Your task to perform on an android device: Search for flights from NYC to London Image 0: 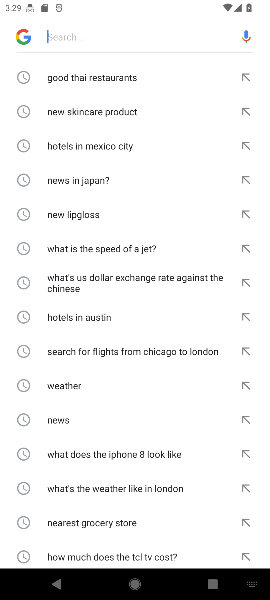
Step 0: press home button
Your task to perform on an android device: Search for flights from NYC to London Image 1: 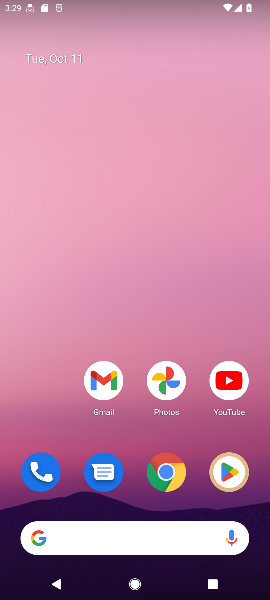
Step 1: click (159, 471)
Your task to perform on an android device: Search for flights from NYC to London Image 2: 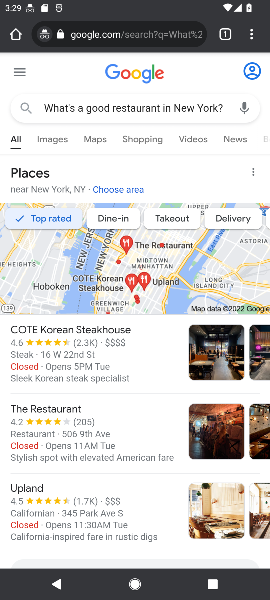
Step 2: click (124, 32)
Your task to perform on an android device: Search for flights from NYC to London Image 3: 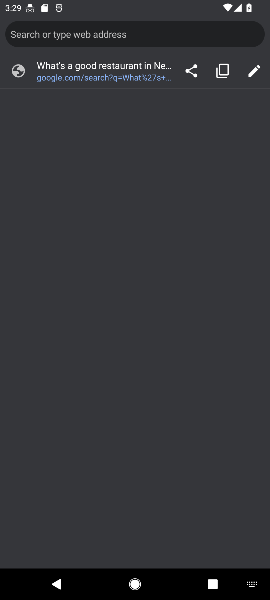
Step 3: type " flights from NYC to London"
Your task to perform on an android device: Search for flights from NYC to London Image 4: 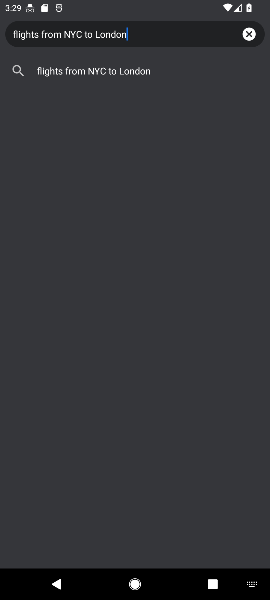
Step 4: click (131, 78)
Your task to perform on an android device: Search for flights from NYC to London Image 5: 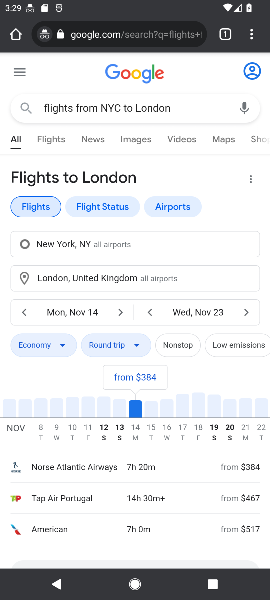
Step 5: drag from (56, 520) to (58, 389)
Your task to perform on an android device: Search for flights from NYC to London Image 6: 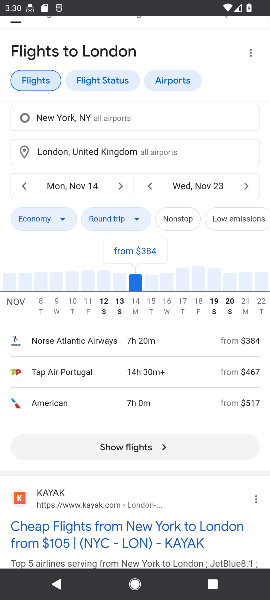
Step 6: drag from (116, 86) to (141, 331)
Your task to perform on an android device: Search for flights from NYC to London Image 7: 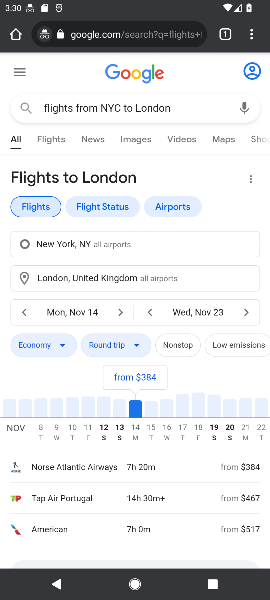
Step 7: click (46, 140)
Your task to perform on an android device: Search for flights from NYC to London Image 8: 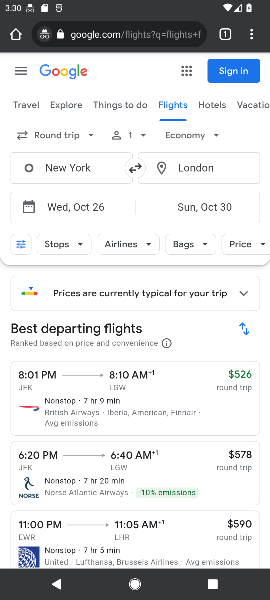
Step 8: task complete